Your task to perform on an android device: set default search engine in the chrome app Image 0: 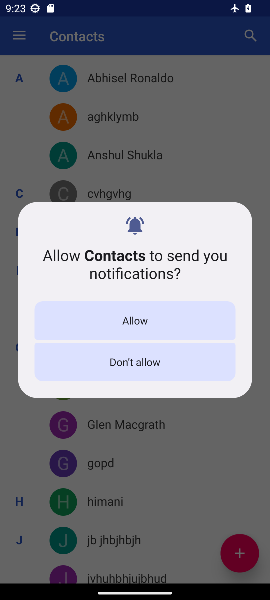
Step 0: press home button
Your task to perform on an android device: set default search engine in the chrome app Image 1: 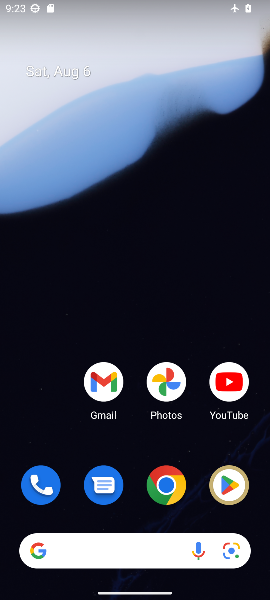
Step 1: drag from (136, 435) to (176, 6)
Your task to perform on an android device: set default search engine in the chrome app Image 2: 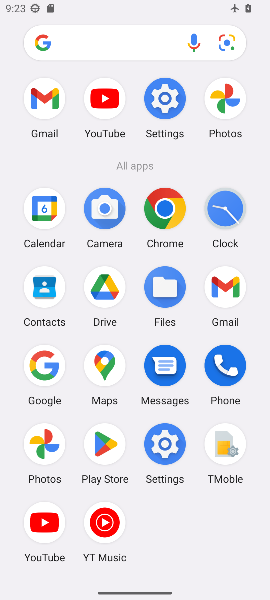
Step 2: click (168, 209)
Your task to perform on an android device: set default search engine in the chrome app Image 3: 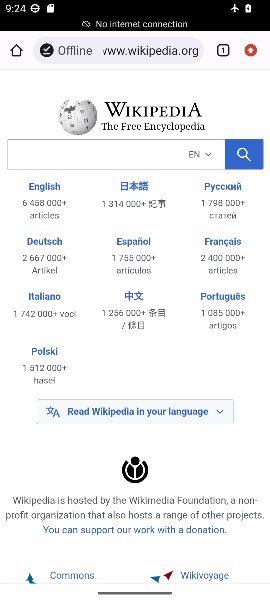
Step 3: drag from (259, 46) to (149, 475)
Your task to perform on an android device: set default search engine in the chrome app Image 4: 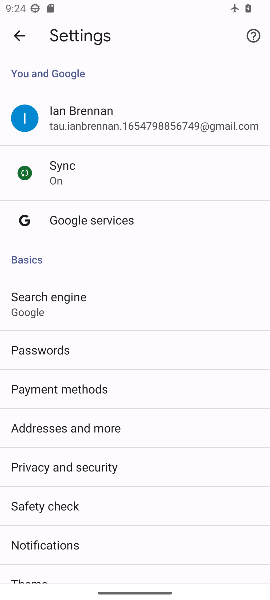
Step 4: click (73, 297)
Your task to perform on an android device: set default search engine in the chrome app Image 5: 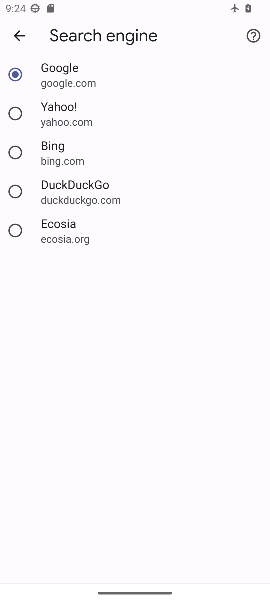
Step 5: task complete